Your task to perform on an android device: Clear the cart on walmart. Add razer blade to the cart on walmart Image 0: 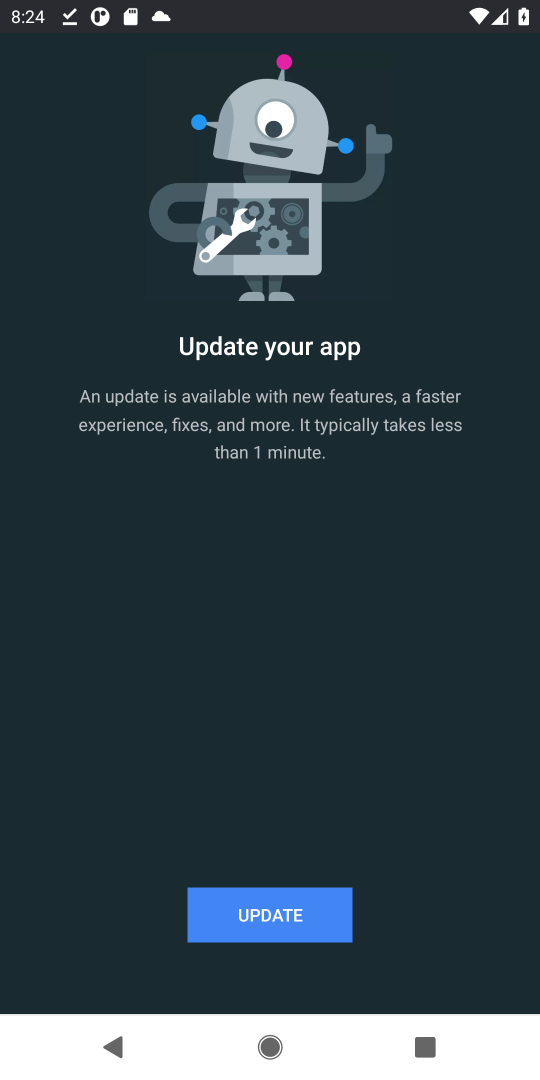
Step 0: press home button
Your task to perform on an android device: Clear the cart on walmart. Add razer blade to the cart on walmart Image 1: 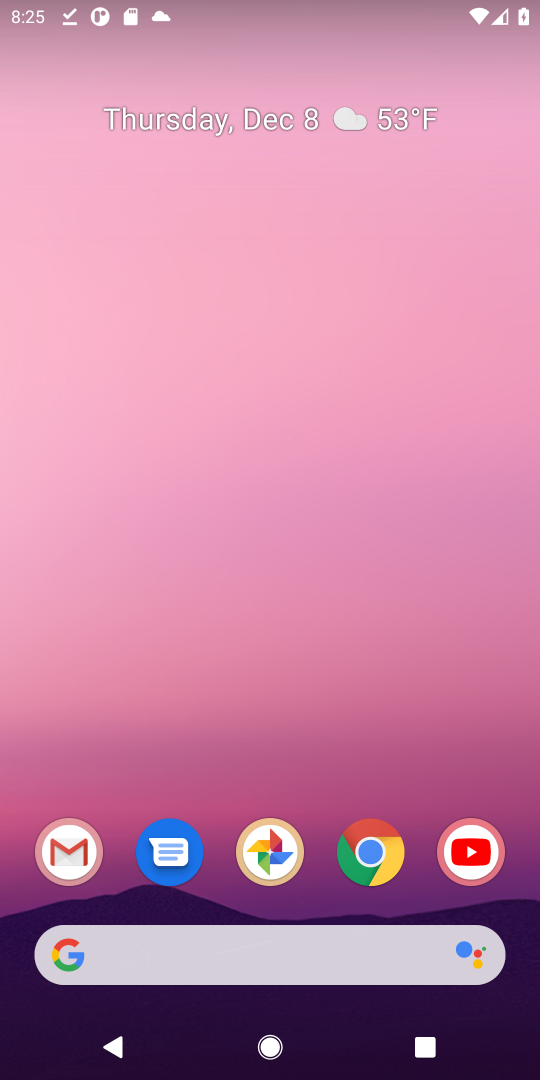
Step 1: click (282, 950)
Your task to perform on an android device: Clear the cart on walmart. Add razer blade to the cart on walmart Image 2: 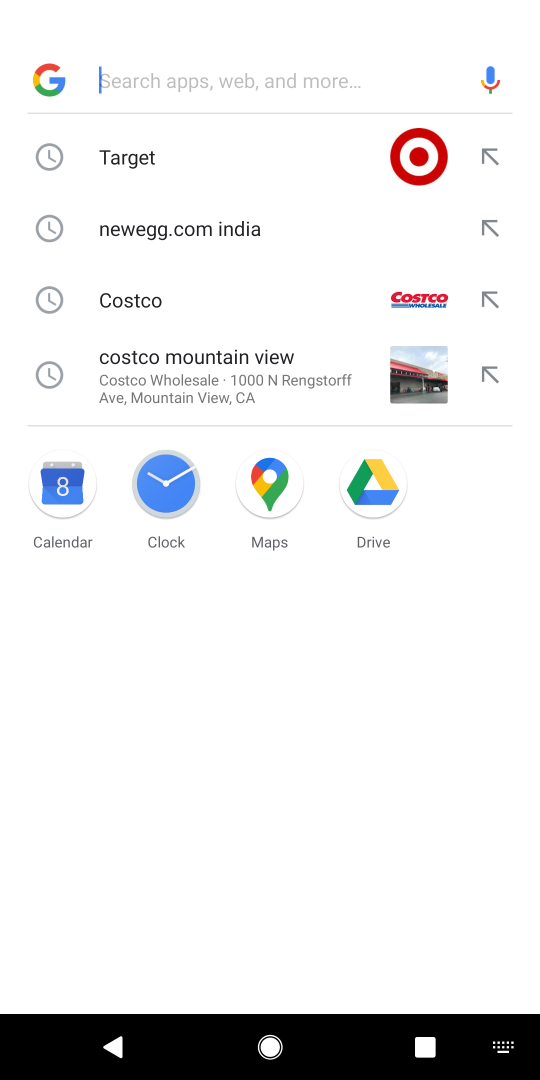
Step 2: type "razer blade"
Your task to perform on an android device: Clear the cart on walmart. Add razer blade to the cart on walmart Image 3: 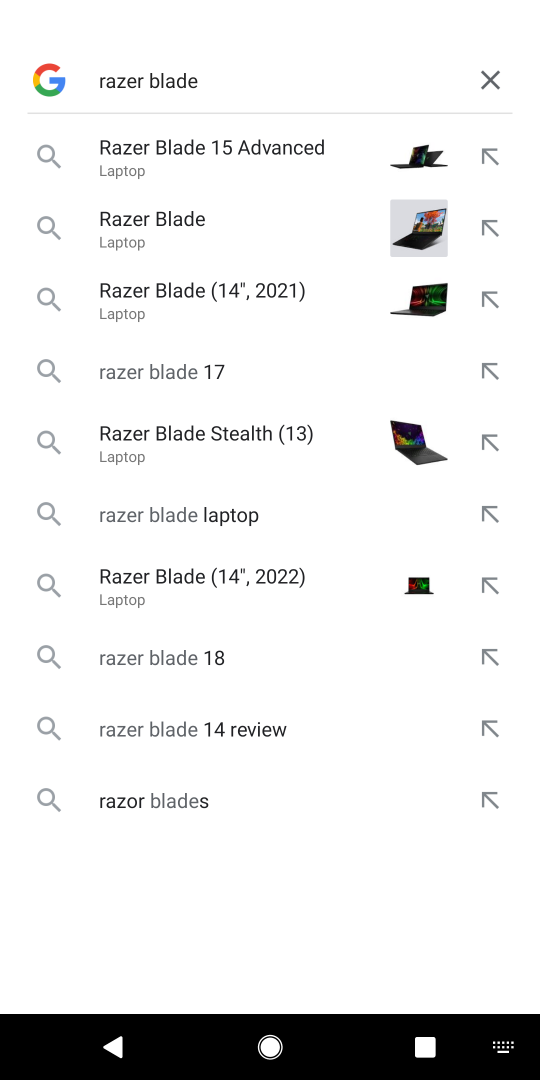
Step 3: click (139, 221)
Your task to perform on an android device: Clear the cart on walmart. Add razer blade to the cart on walmart Image 4: 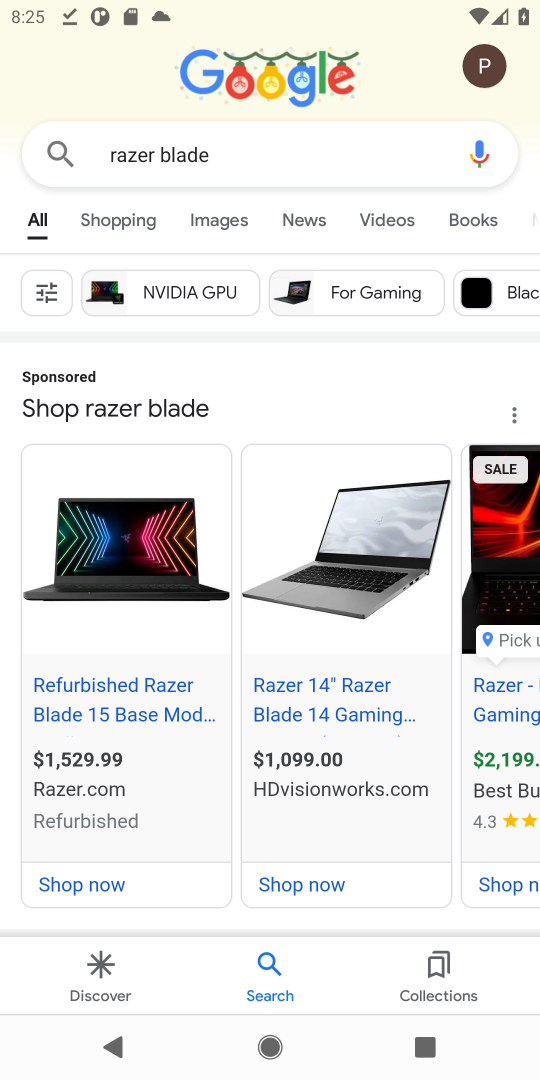
Step 4: click (126, 709)
Your task to perform on an android device: Clear the cart on walmart. Add razer blade to the cart on walmart Image 5: 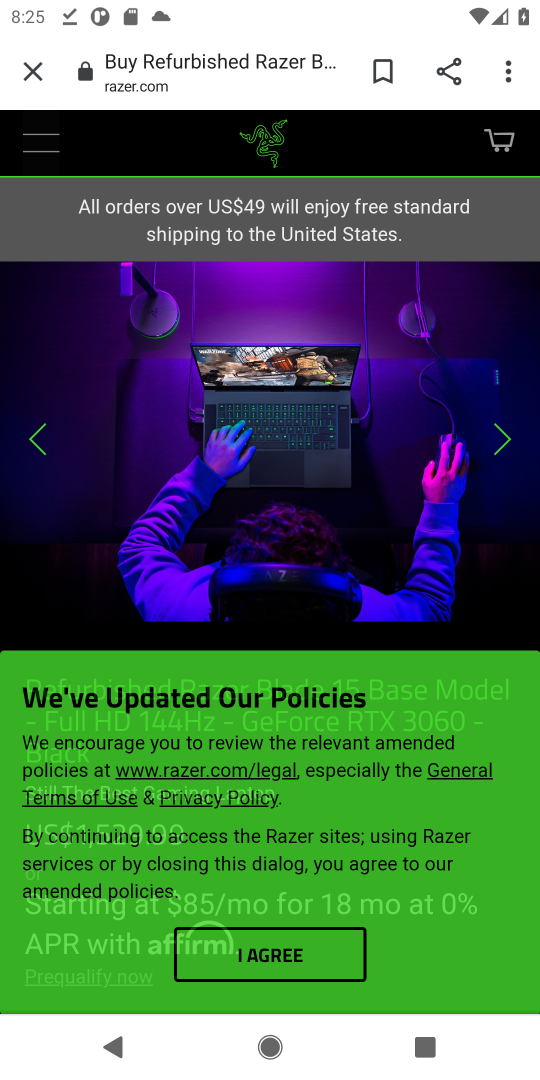
Step 5: task complete